Your task to perform on an android device: Open wifi settings Image 0: 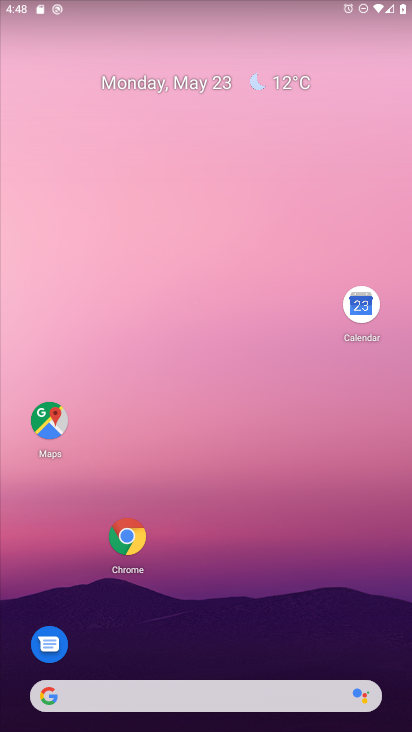
Step 0: drag from (192, 579) to (165, 217)
Your task to perform on an android device: Open wifi settings Image 1: 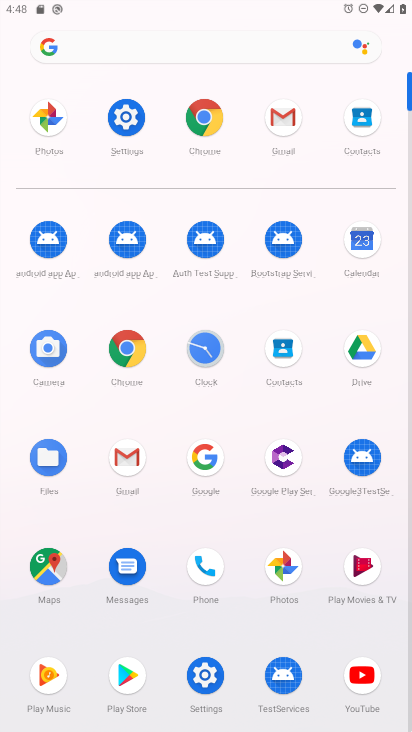
Step 1: click (129, 123)
Your task to perform on an android device: Open wifi settings Image 2: 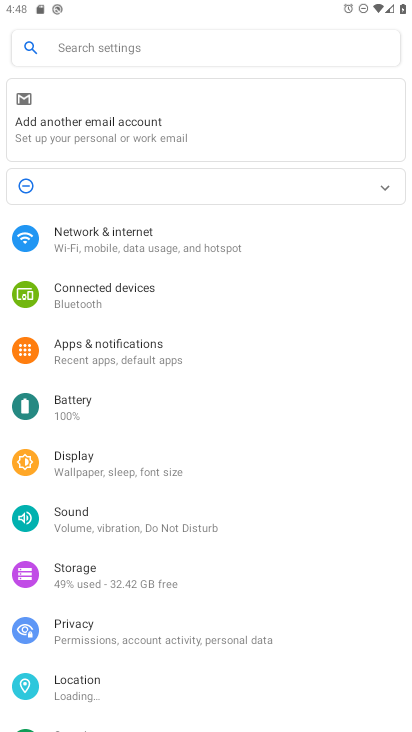
Step 2: click (121, 253)
Your task to perform on an android device: Open wifi settings Image 3: 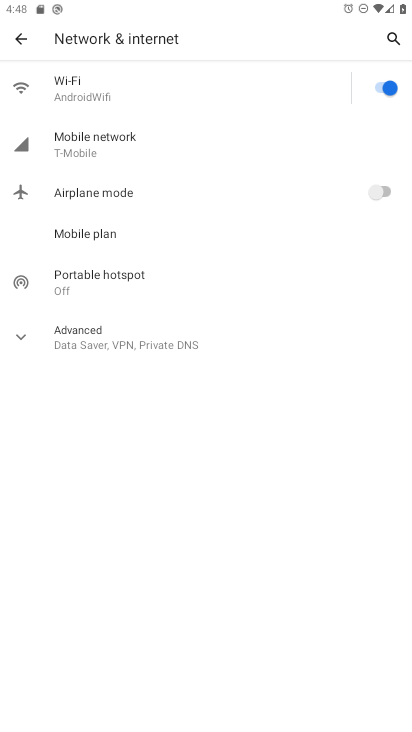
Step 3: click (212, 90)
Your task to perform on an android device: Open wifi settings Image 4: 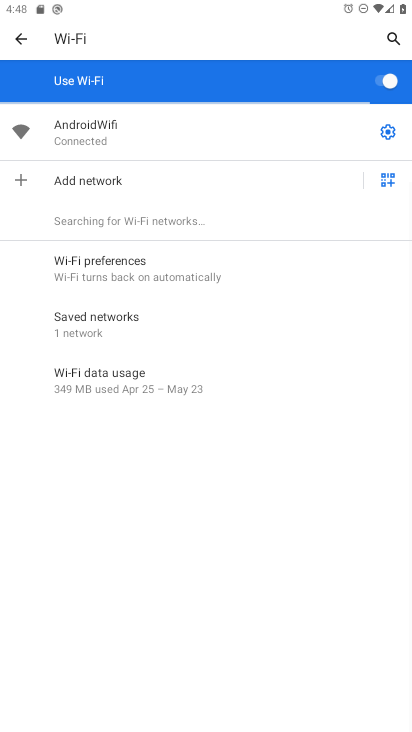
Step 4: click (389, 127)
Your task to perform on an android device: Open wifi settings Image 5: 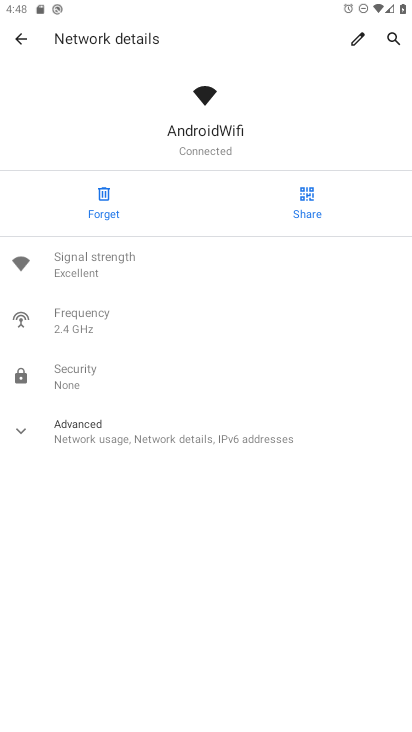
Step 5: task complete